Your task to perform on an android device: check android version Image 0: 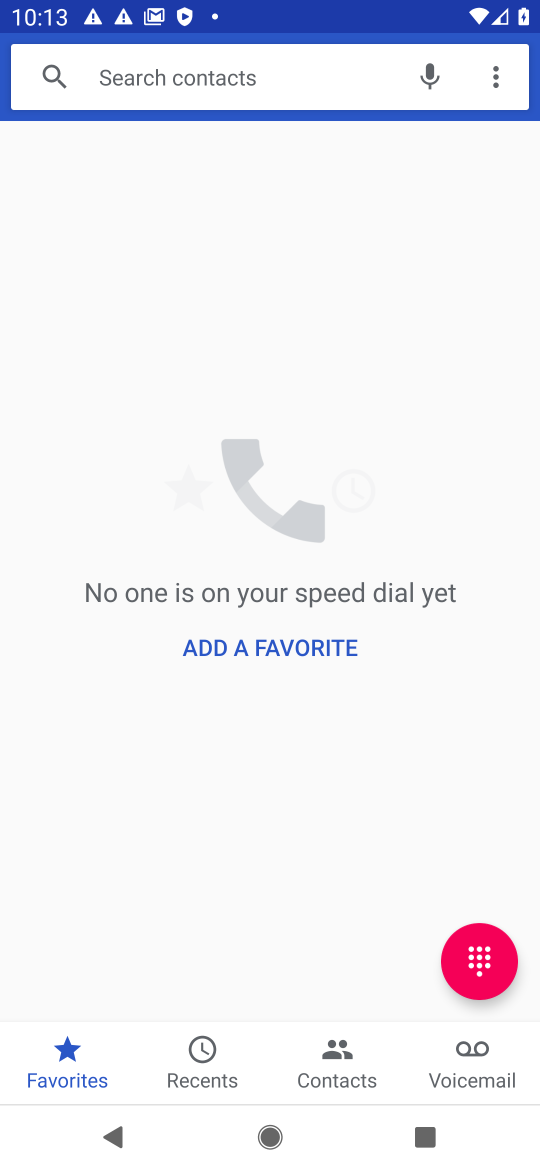
Step 0: press home button
Your task to perform on an android device: check android version Image 1: 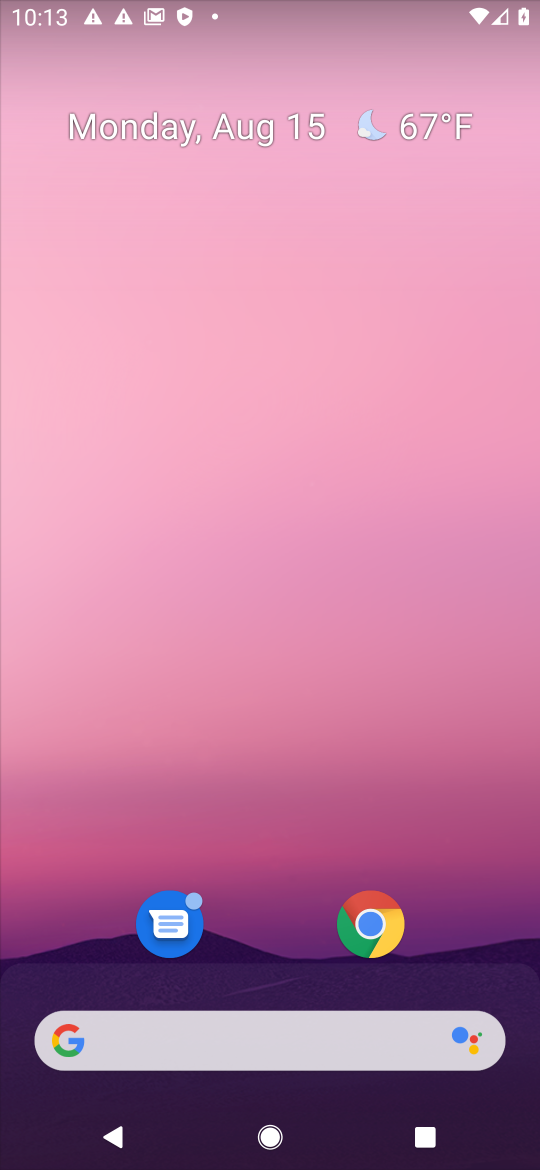
Step 1: drag from (509, 977) to (459, 179)
Your task to perform on an android device: check android version Image 2: 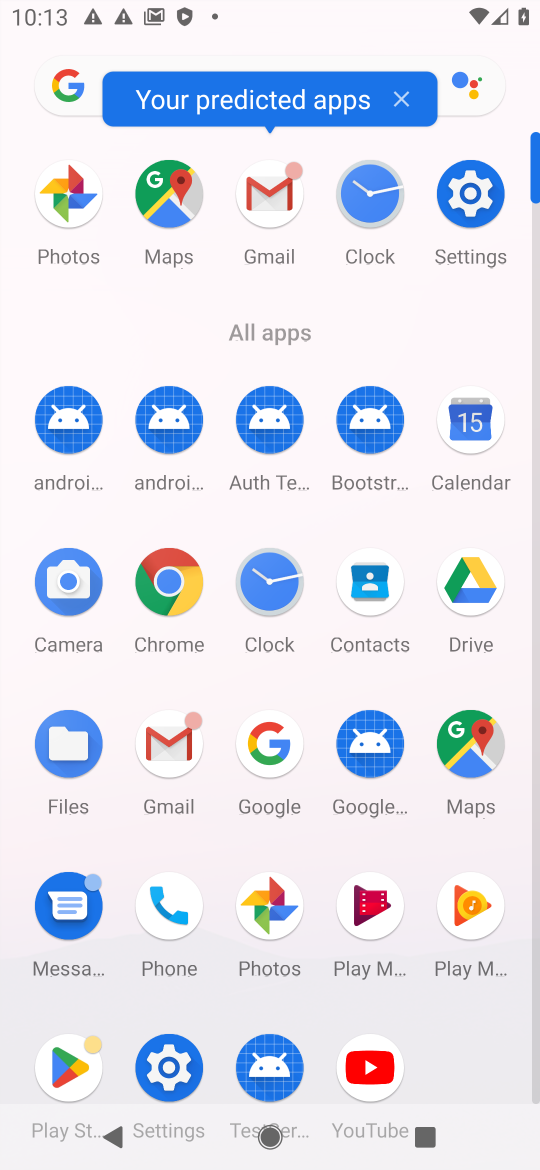
Step 2: click (168, 1072)
Your task to perform on an android device: check android version Image 3: 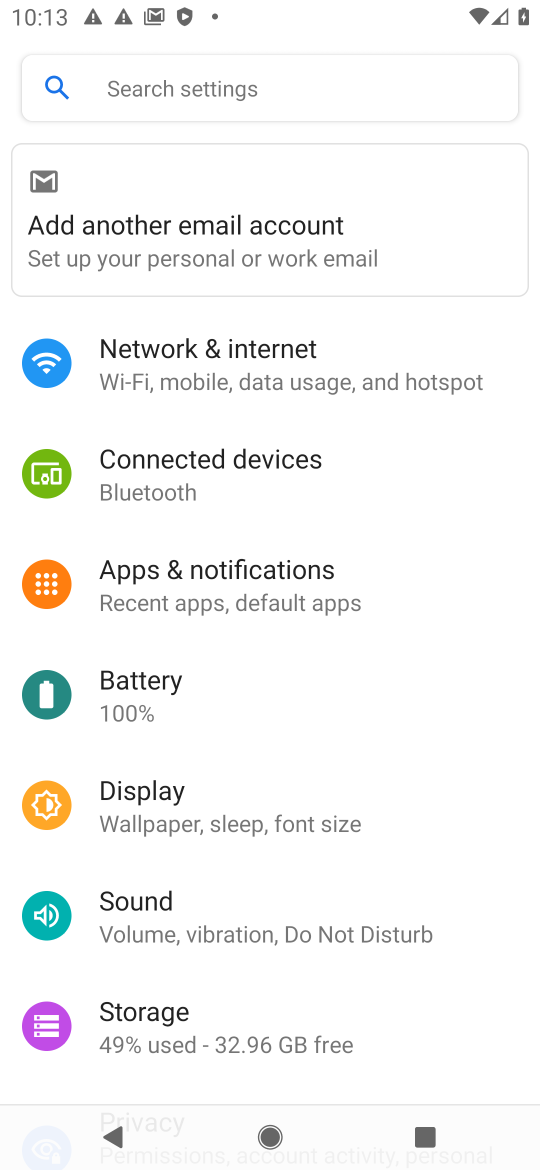
Step 3: drag from (445, 1005) to (411, 258)
Your task to perform on an android device: check android version Image 4: 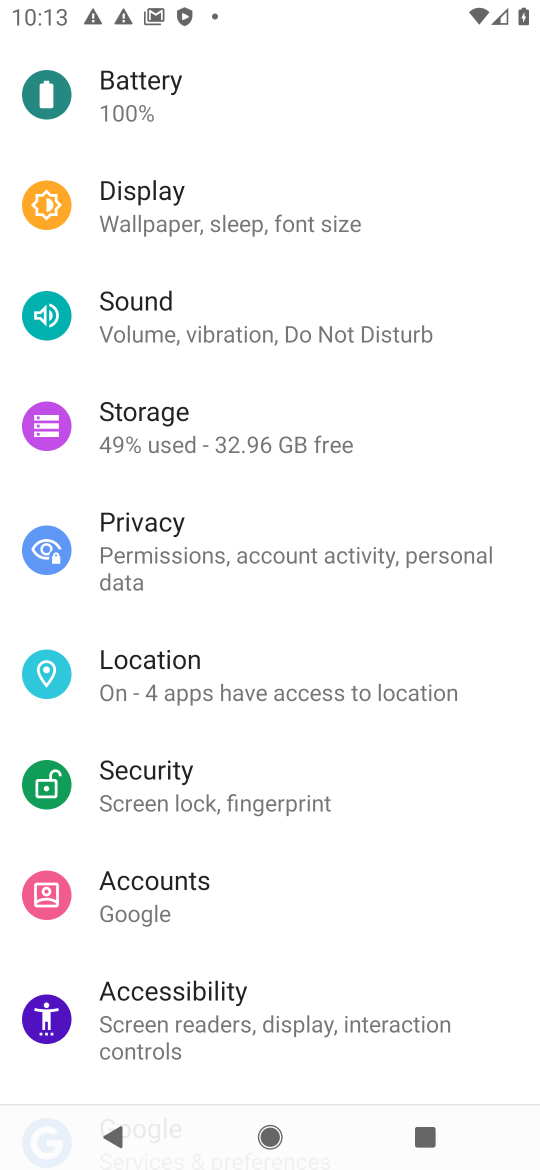
Step 4: drag from (400, 961) to (403, 323)
Your task to perform on an android device: check android version Image 5: 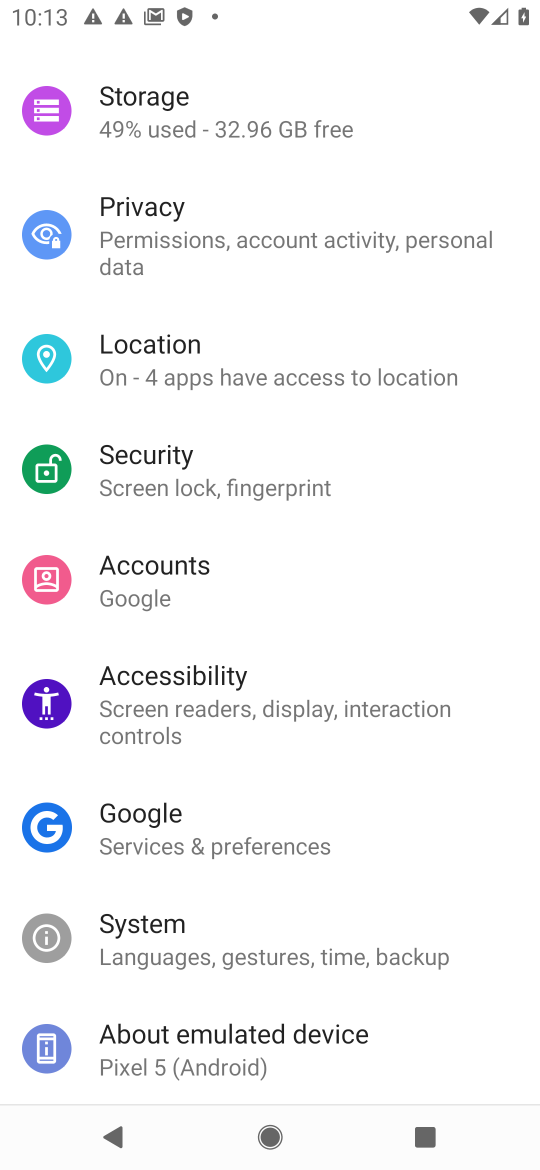
Step 5: click (203, 1035)
Your task to perform on an android device: check android version Image 6: 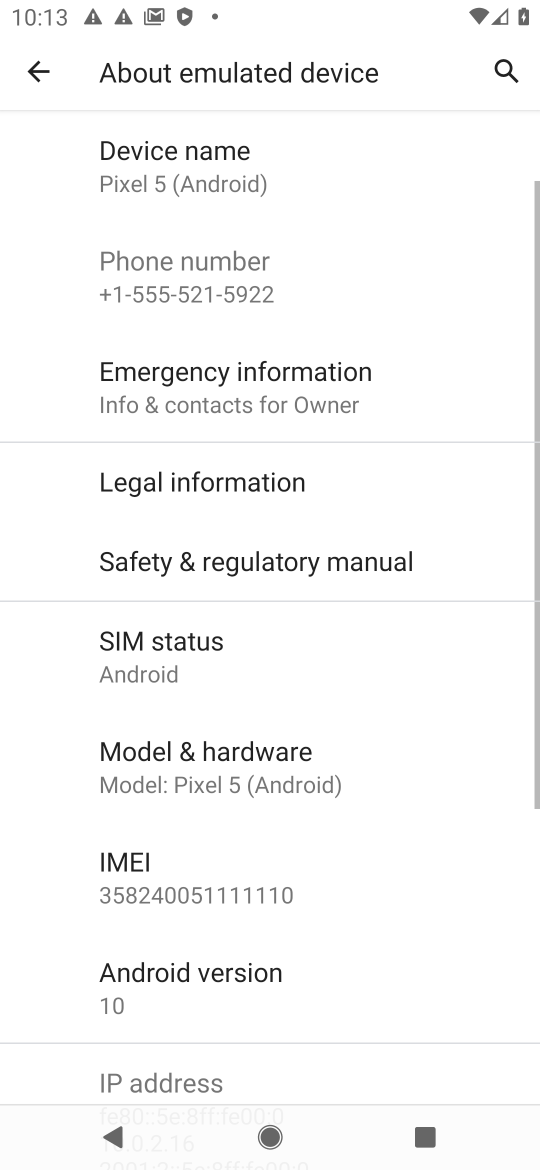
Step 6: click (160, 996)
Your task to perform on an android device: check android version Image 7: 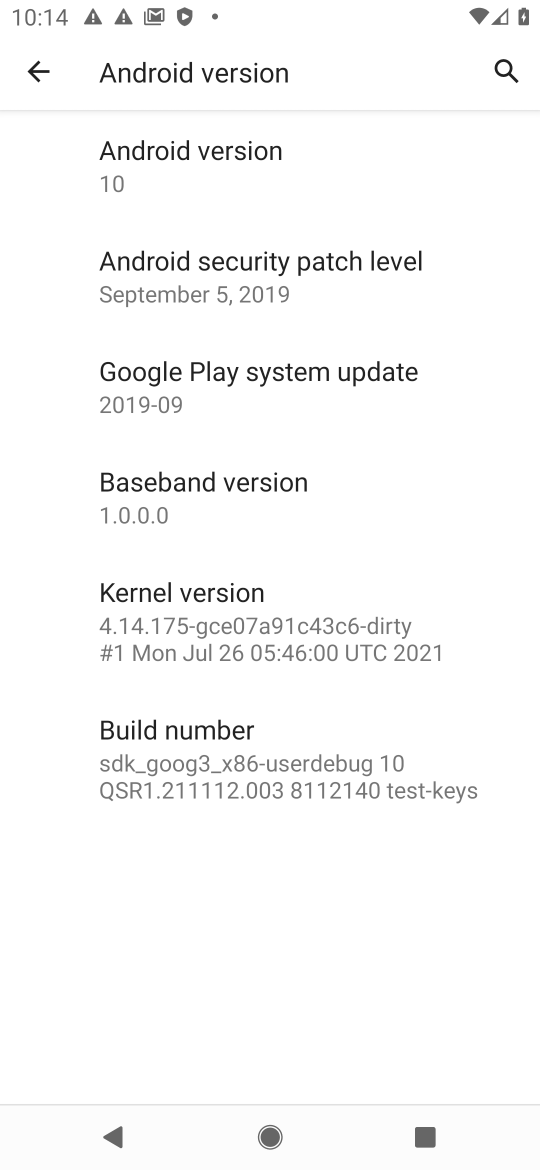
Step 7: click (195, 174)
Your task to perform on an android device: check android version Image 8: 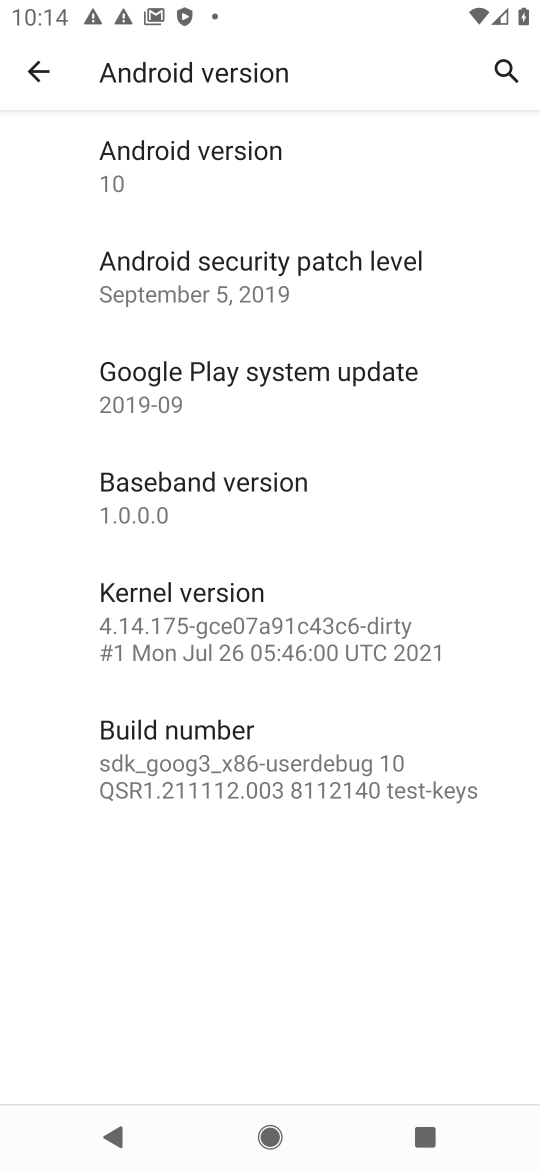
Step 8: task complete